Your task to perform on an android device: Go to Maps Image 0: 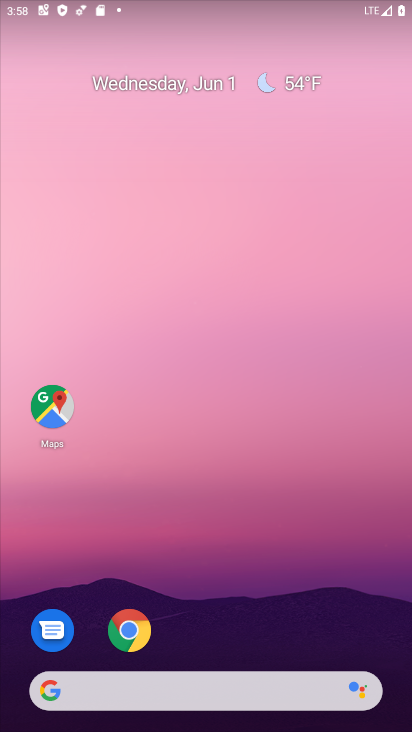
Step 0: drag from (268, 476) to (231, 65)
Your task to perform on an android device: Go to Maps Image 1: 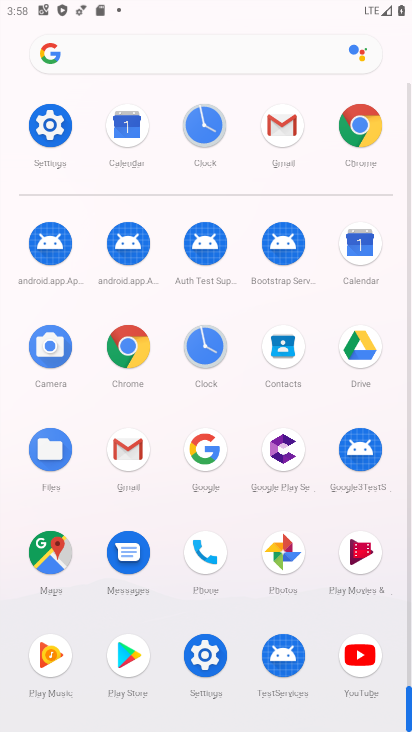
Step 1: drag from (19, 544) to (15, 183)
Your task to perform on an android device: Go to Maps Image 2: 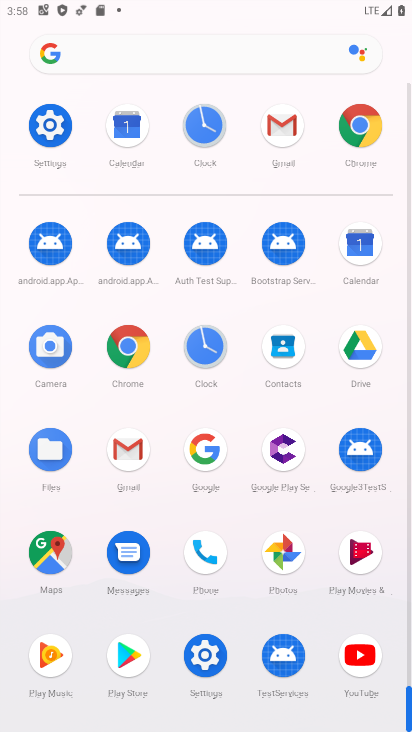
Step 2: click (39, 552)
Your task to perform on an android device: Go to Maps Image 3: 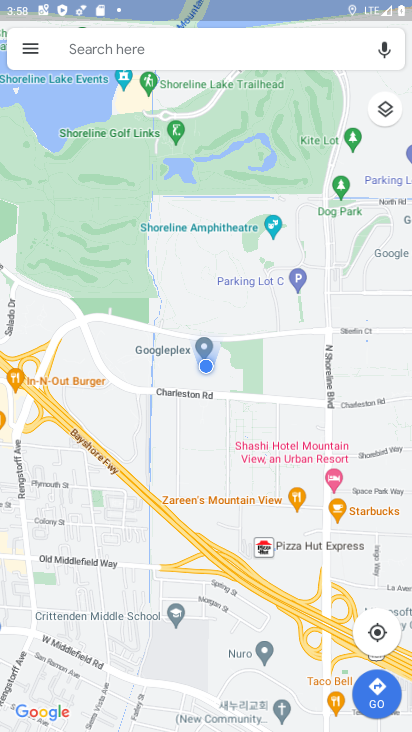
Step 3: task complete